Your task to perform on an android device: Search for pizza restaurants on Maps Image 0: 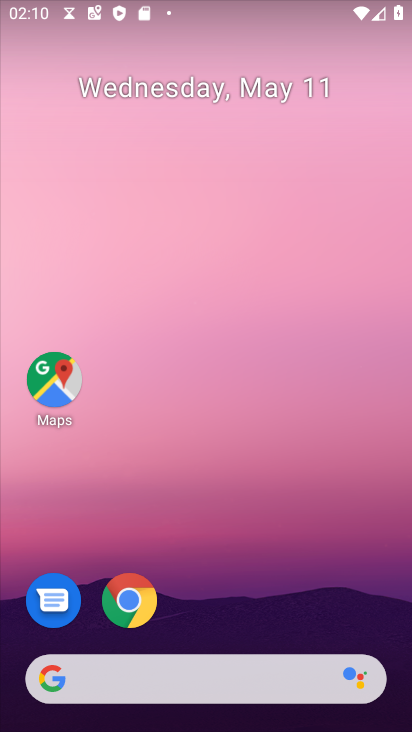
Step 0: drag from (286, 598) to (284, 189)
Your task to perform on an android device: Search for pizza restaurants on Maps Image 1: 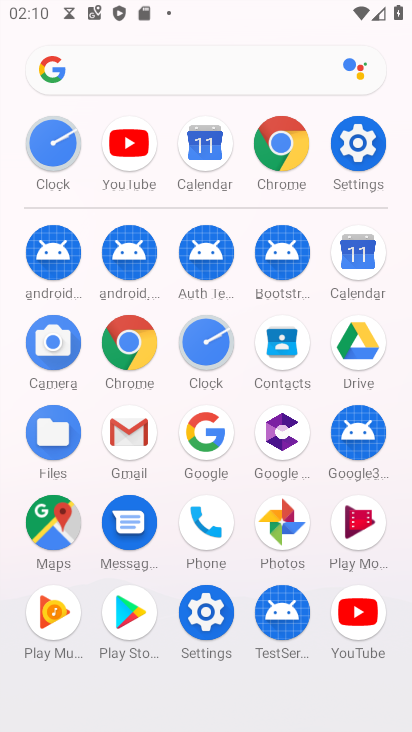
Step 1: click (51, 527)
Your task to perform on an android device: Search for pizza restaurants on Maps Image 2: 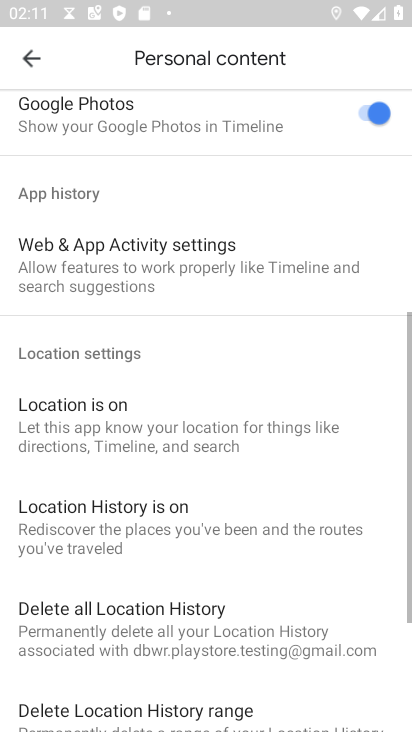
Step 2: click (23, 55)
Your task to perform on an android device: Search for pizza restaurants on Maps Image 3: 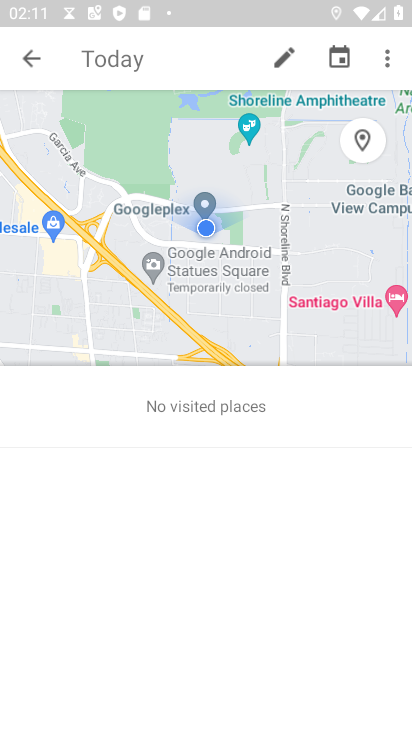
Step 3: click (34, 52)
Your task to perform on an android device: Search for pizza restaurants on Maps Image 4: 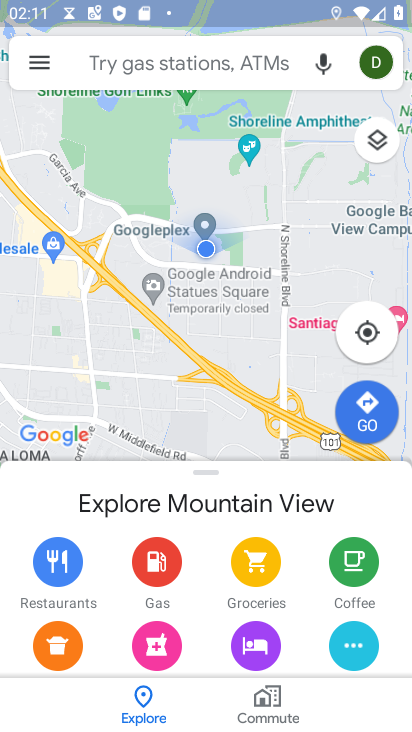
Step 4: click (186, 57)
Your task to perform on an android device: Search for pizza restaurants on Maps Image 5: 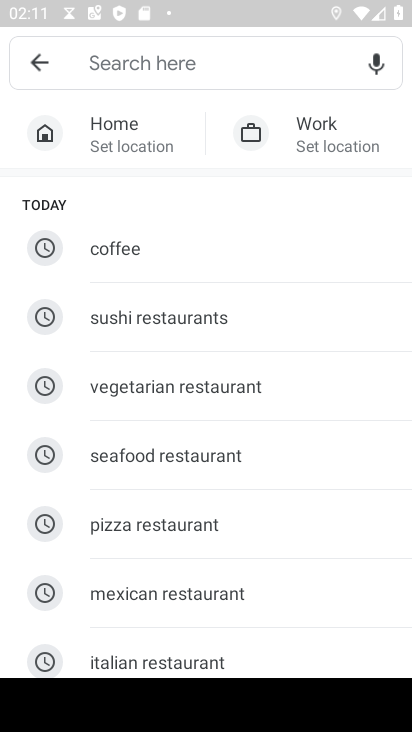
Step 5: click (186, 515)
Your task to perform on an android device: Search for pizza restaurants on Maps Image 6: 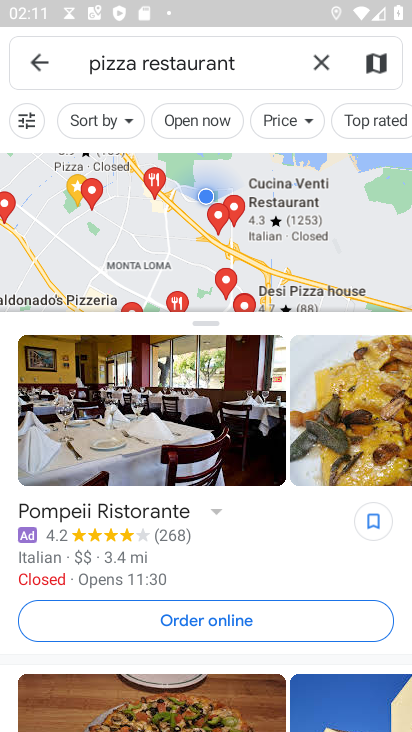
Step 6: task complete